Your task to perform on an android device: Open eBay Image 0: 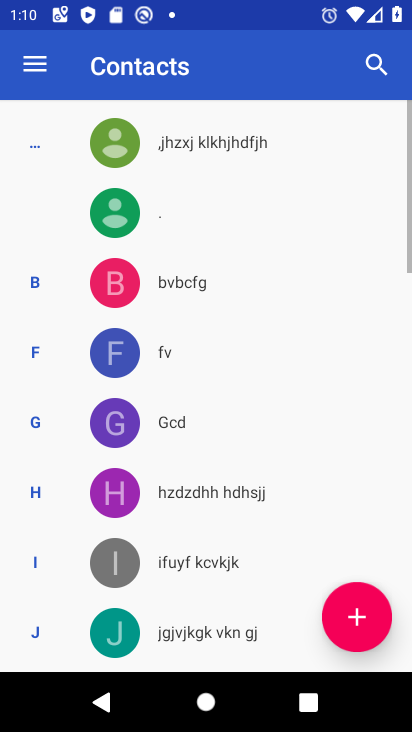
Step 0: click (255, 190)
Your task to perform on an android device: Open eBay Image 1: 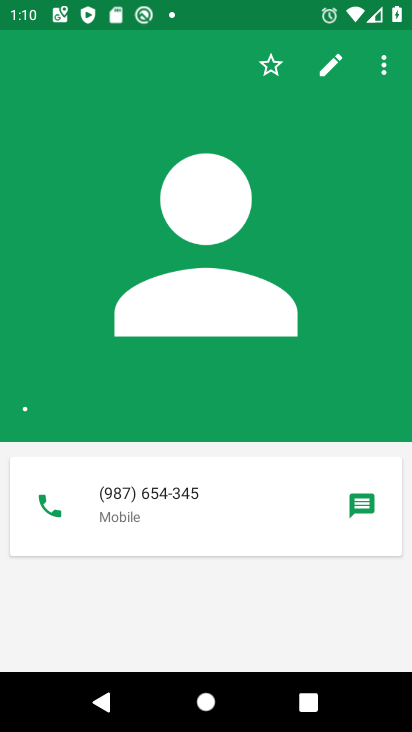
Step 1: press home button
Your task to perform on an android device: Open eBay Image 2: 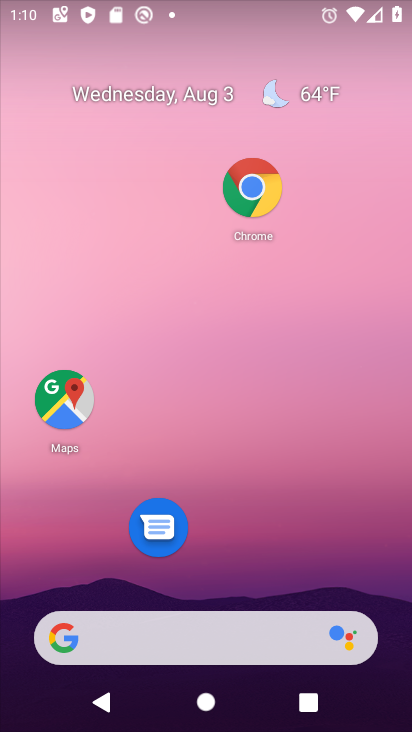
Step 2: click (263, 187)
Your task to perform on an android device: Open eBay Image 3: 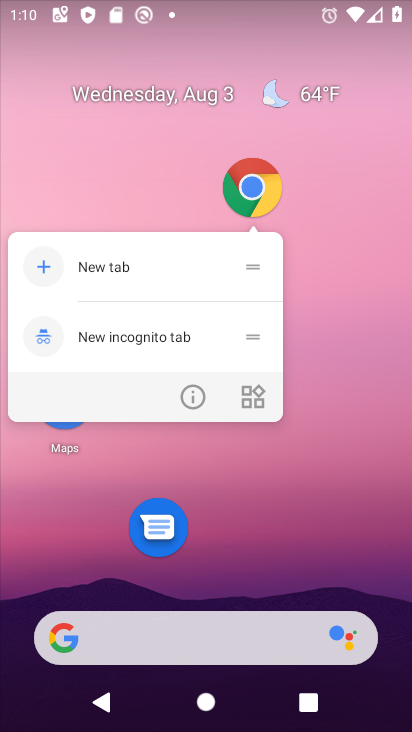
Step 3: click (263, 187)
Your task to perform on an android device: Open eBay Image 4: 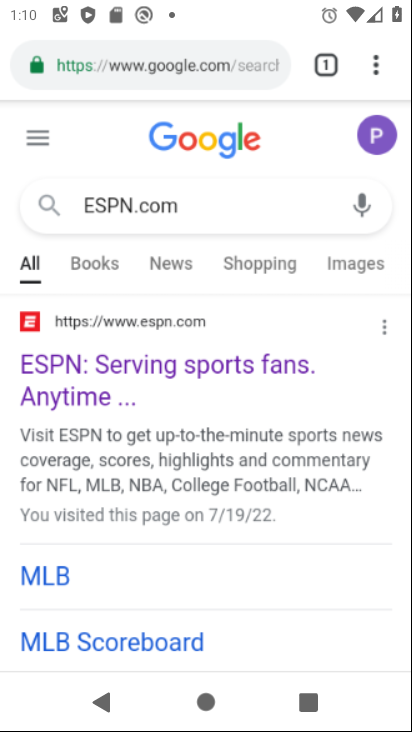
Step 4: click (206, 67)
Your task to perform on an android device: Open eBay Image 5: 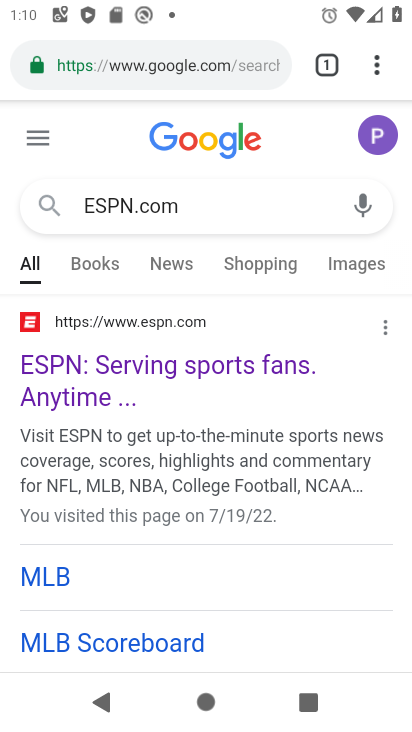
Step 5: click (205, 62)
Your task to perform on an android device: Open eBay Image 6: 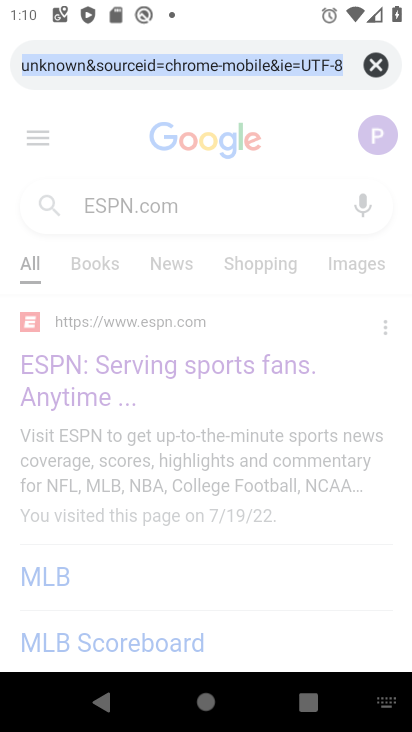
Step 6: type "eBay"
Your task to perform on an android device: Open eBay Image 7: 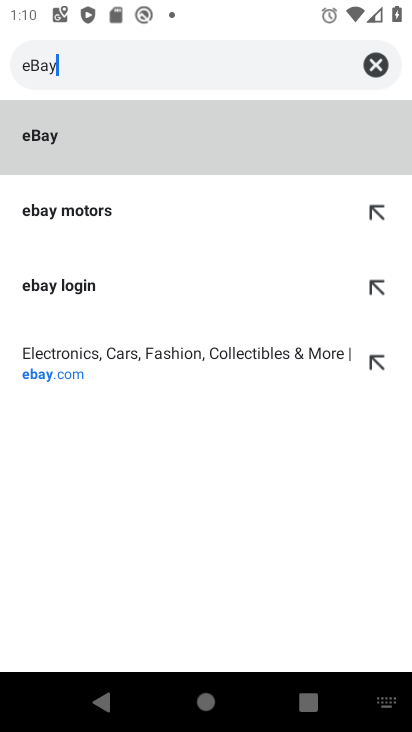
Step 7: click (113, 162)
Your task to perform on an android device: Open eBay Image 8: 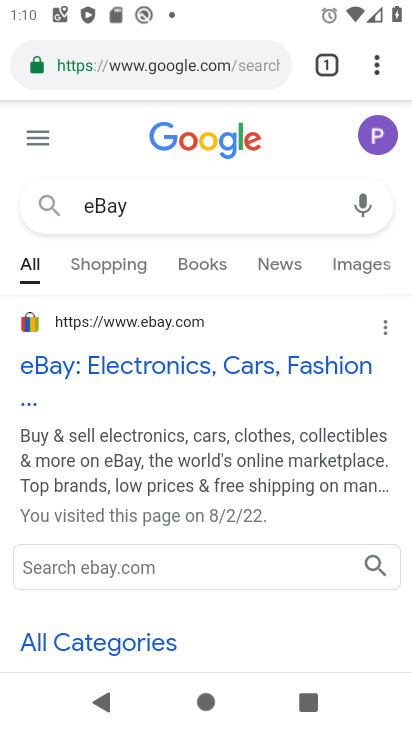
Step 8: task complete